Your task to perform on an android device: open a new tab in the chrome app Image 0: 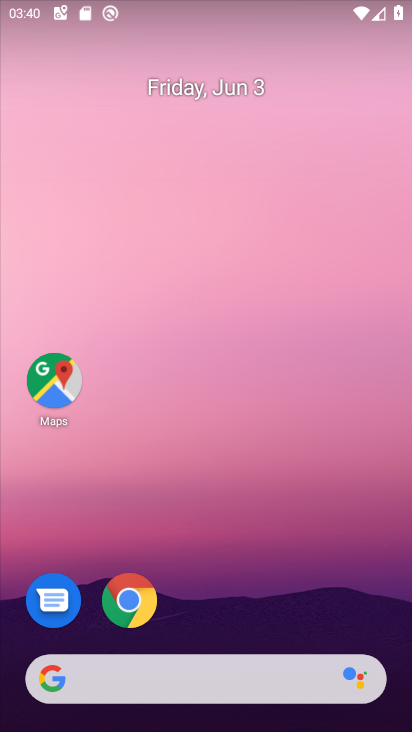
Step 0: drag from (209, 587) to (233, 172)
Your task to perform on an android device: open a new tab in the chrome app Image 1: 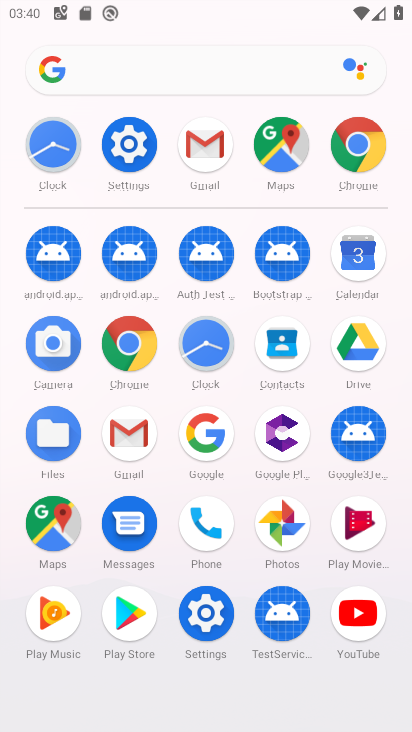
Step 1: click (352, 142)
Your task to perform on an android device: open a new tab in the chrome app Image 2: 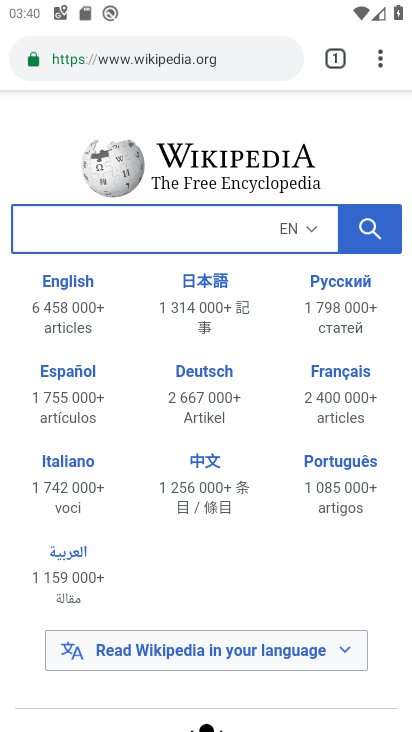
Step 2: task complete